Your task to perform on an android device: turn on the 12-hour format for clock Image 0: 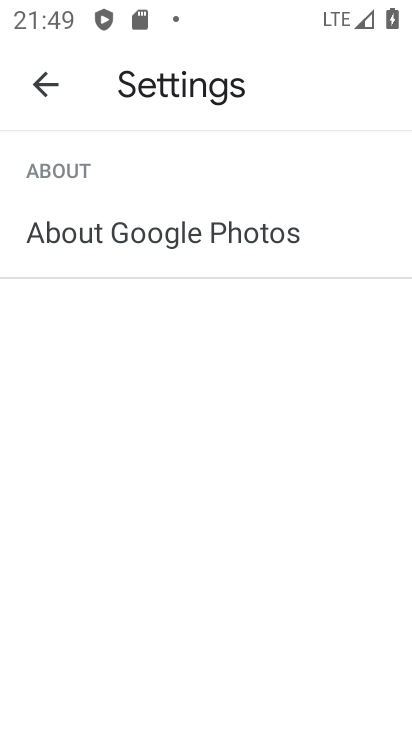
Step 0: click (36, 86)
Your task to perform on an android device: turn on the 12-hour format for clock Image 1: 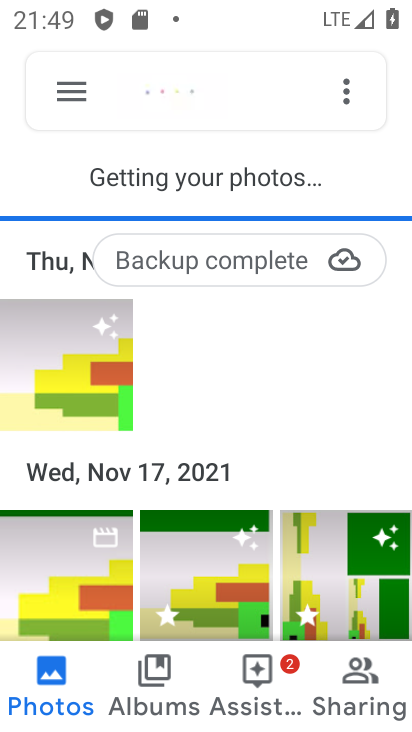
Step 1: press home button
Your task to perform on an android device: turn on the 12-hour format for clock Image 2: 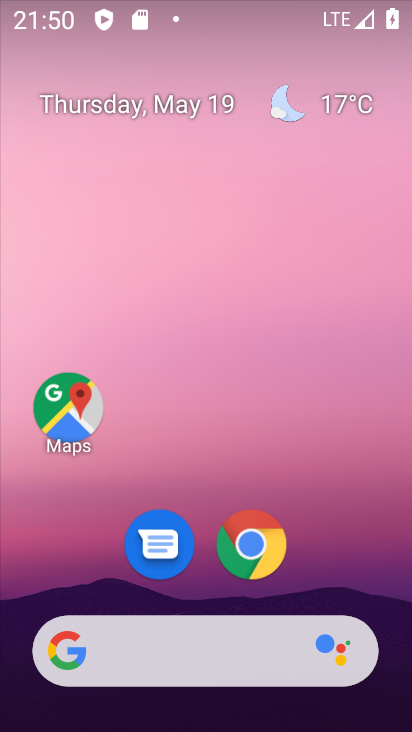
Step 2: drag from (231, 572) to (232, 32)
Your task to perform on an android device: turn on the 12-hour format for clock Image 3: 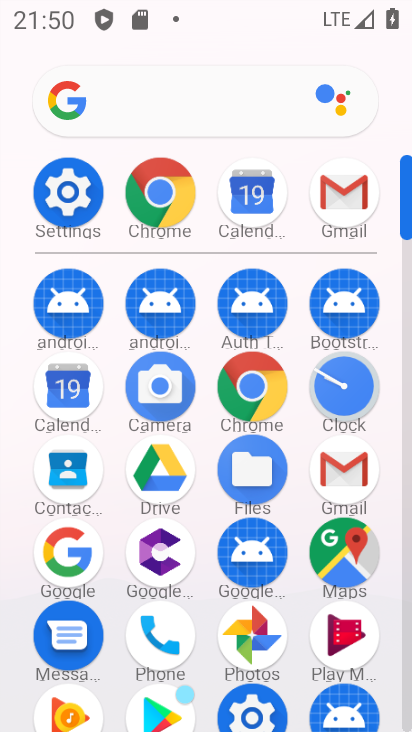
Step 3: click (72, 204)
Your task to perform on an android device: turn on the 12-hour format for clock Image 4: 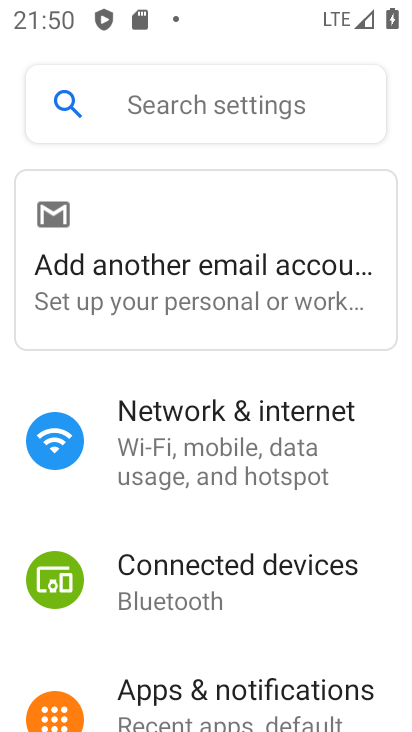
Step 4: press home button
Your task to perform on an android device: turn on the 12-hour format for clock Image 5: 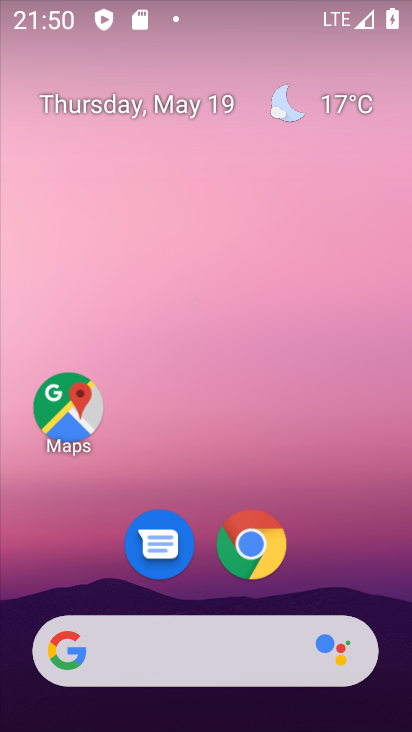
Step 5: drag from (263, 705) to (302, 59)
Your task to perform on an android device: turn on the 12-hour format for clock Image 6: 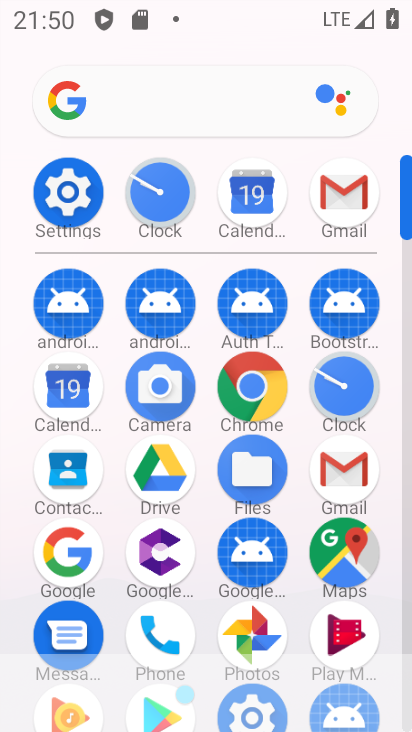
Step 6: click (170, 196)
Your task to perform on an android device: turn on the 12-hour format for clock Image 7: 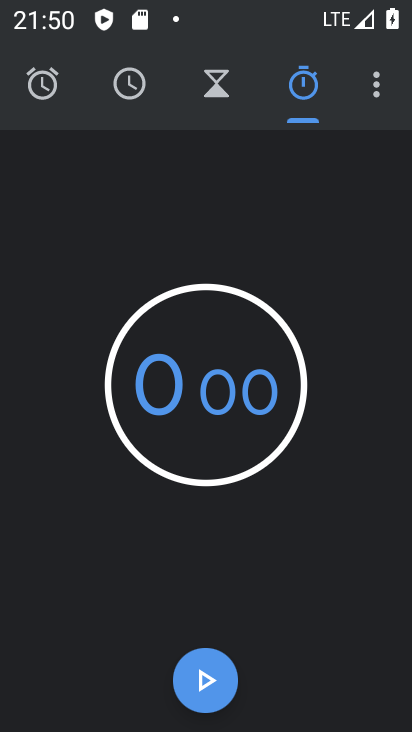
Step 7: click (380, 92)
Your task to perform on an android device: turn on the 12-hour format for clock Image 8: 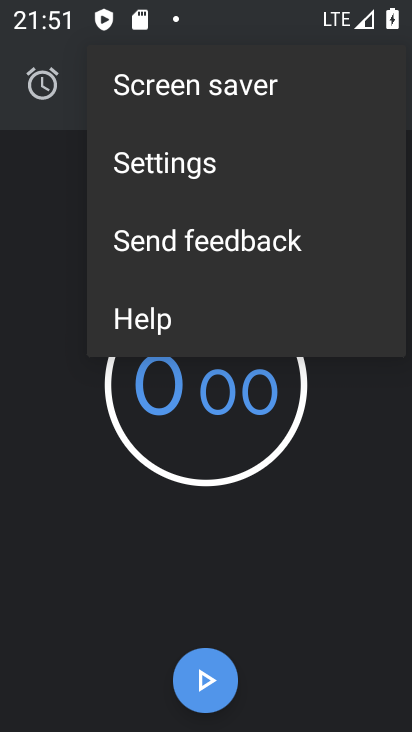
Step 8: click (180, 165)
Your task to perform on an android device: turn on the 12-hour format for clock Image 9: 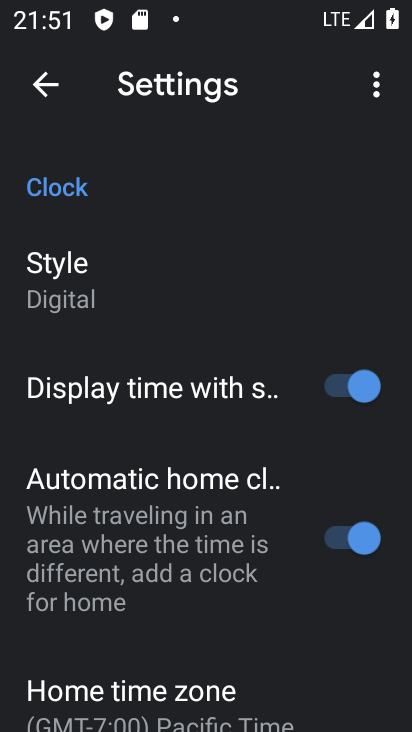
Step 9: drag from (262, 618) to (296, 200)
Your task to perform on an android device: turn on the 12-hour format for clock Image 10: 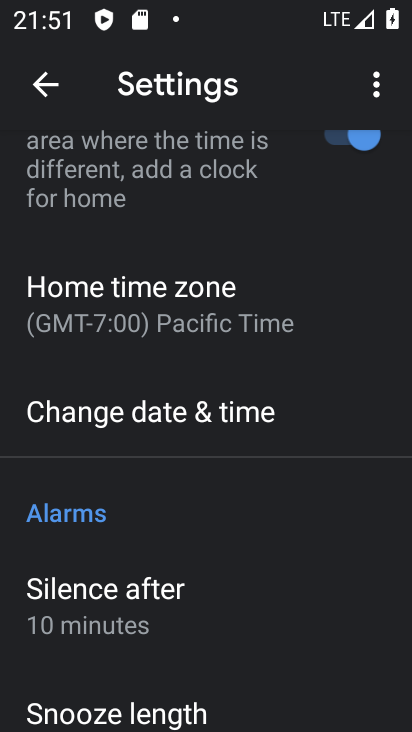
Step 10: click (221, 408)
Your task to perform on an android device: turn on the 12-hour format for clock Image 11: 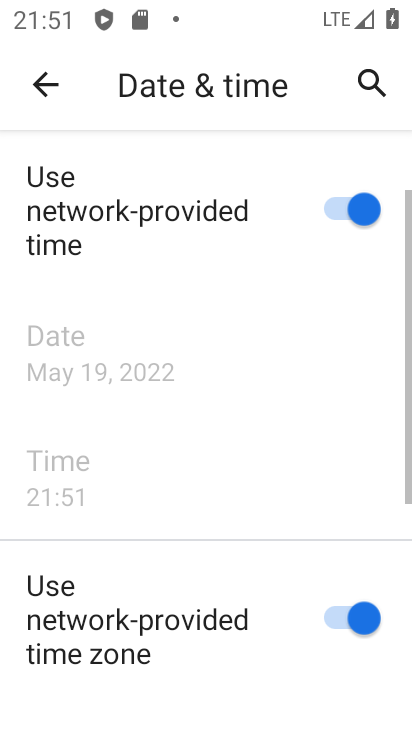
Step 11: drag from (254, 627) to (242, 132)
Your task to perform on an android device: turn on the 12-hour format for clock Image 12: 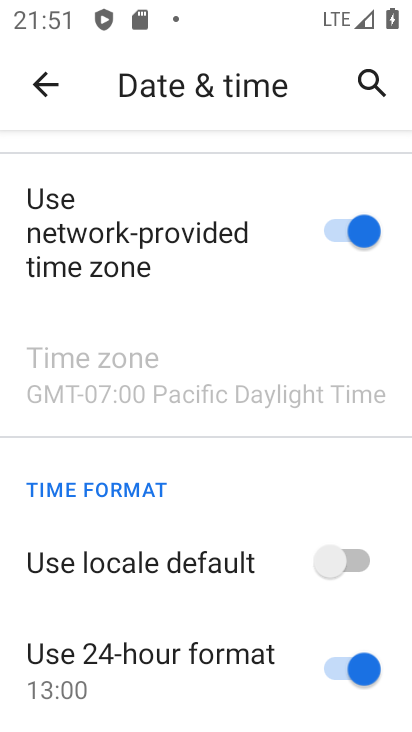
Step 12: click (350, 547)
Your task to perform on an android device: turn on the 12-hour format for clock Image 13: 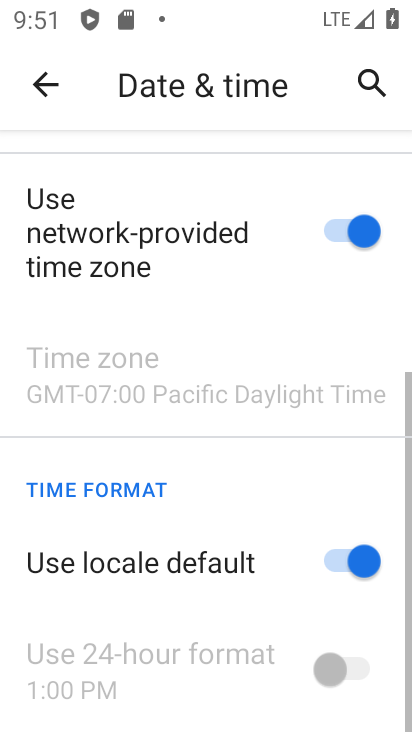
Step 13: click (360, 675)
Your task to perform on an android device: turn on the 12-hour format for clock Image 14: 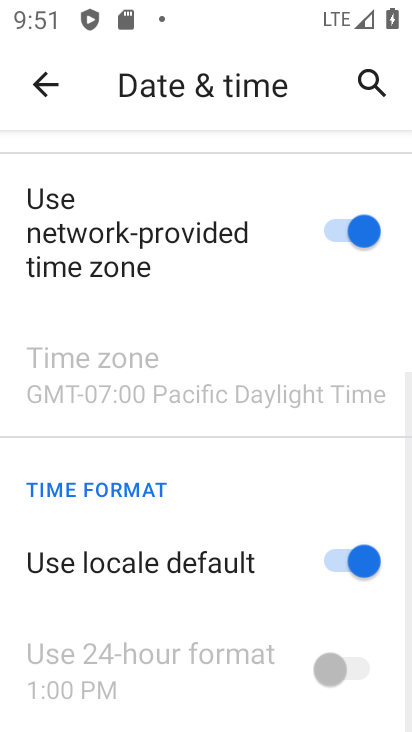
Step 14: task complete